Your task to perform on an android device: allow cookies in the chrome app Image 0: 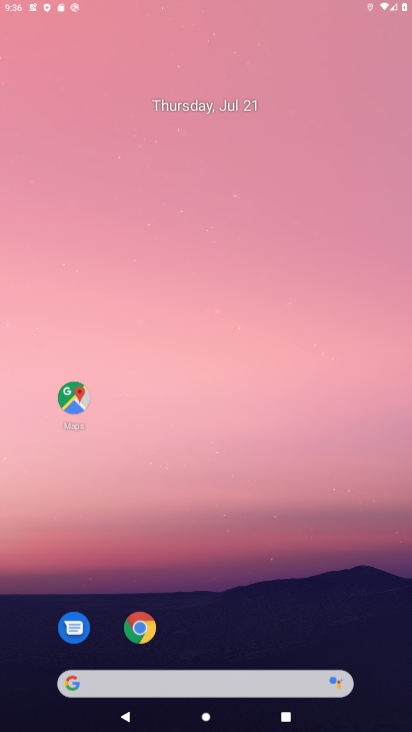
Step 0: click (320, 25)
Your task to perform on an android device: allow cookies in the chrome app Image 1: 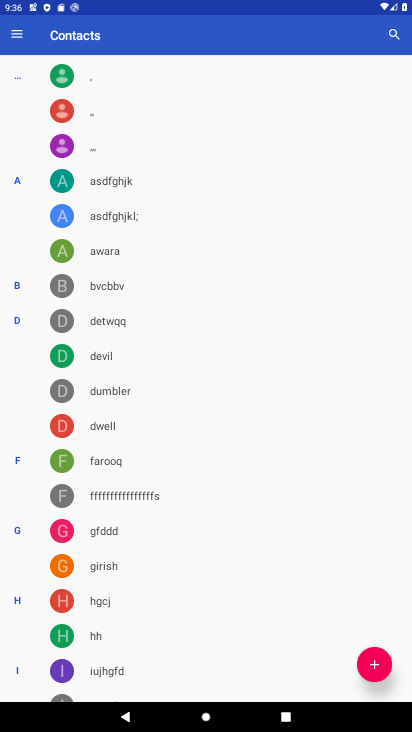
Step 1: press home button
Your task to perform on an android device: allow cookies in the chrome app Image 2: 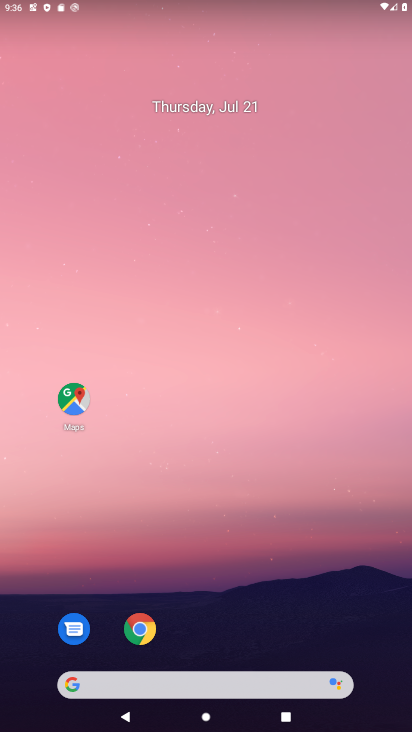
Step 2: click (142, 635)
Your task to perform on an android device: allow cookies in the chrome app Image 3: 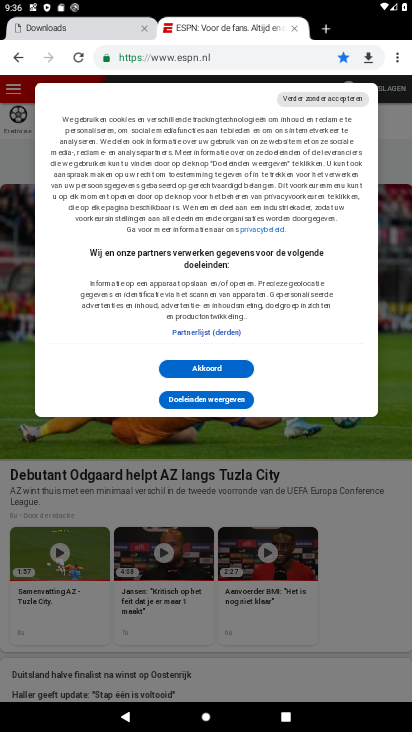
Step 3: click (402, 60)
Your task to perform on an android device: allow cookies in the chrome app Image 4: 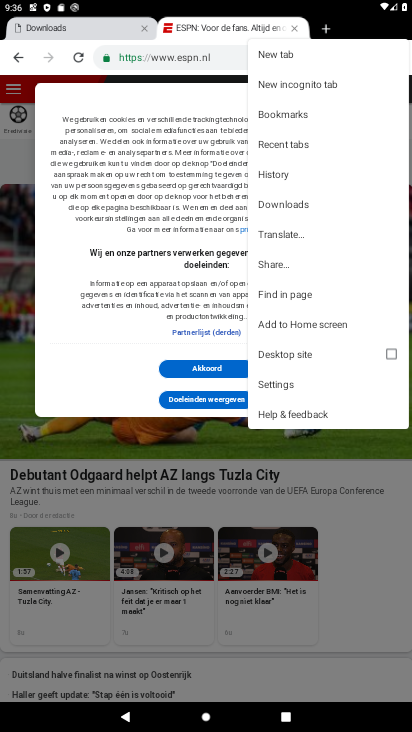
Step 4: click (282, 379)
Your task to perform on an android device: allow cookies in the chrome app Image 5: 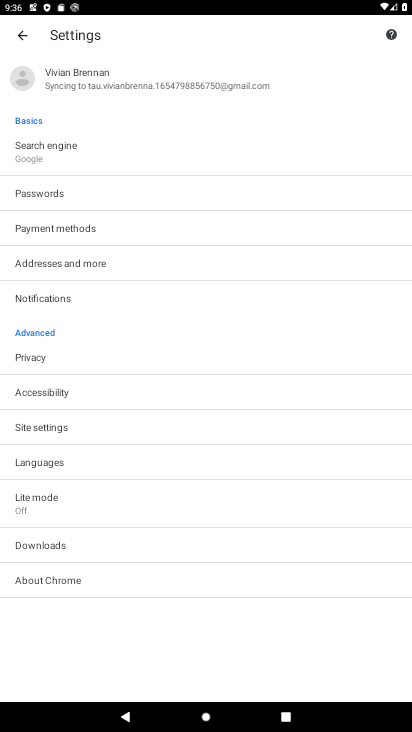
Step 5: click (84, 431)
Your task to perform on an android device: allow cookies in the chrome app Image 6: 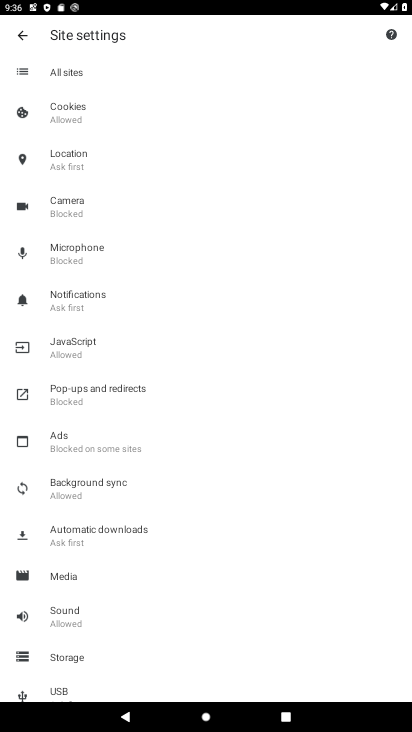
Step 6: click (114, 115)
Your task to perform on an android device: allow cookies in the chrome app Image 7: 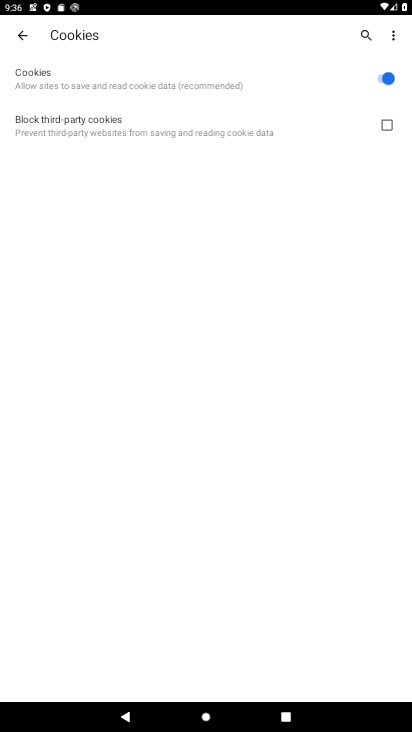
Step 7: task complete